Your task to perform on an android device: find snoozed emails in the gmail app Image 0: 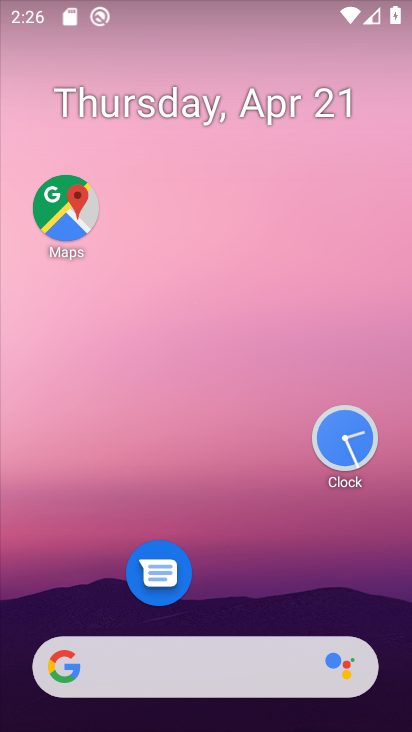
Step 0: drag from (37, 532) to (265, 34)
Your task to perform on an android device: find snoozed emails in the gmail app Image 1: 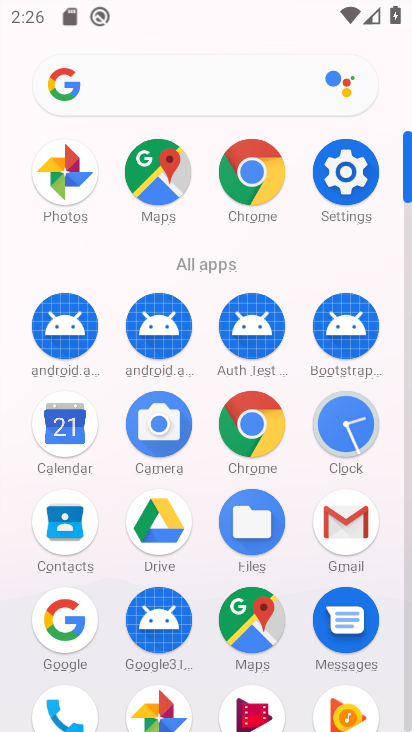
Step 1: click (340, 530)
Your task to perform on an android device: find snoozed emails in the gmail app Image 2: 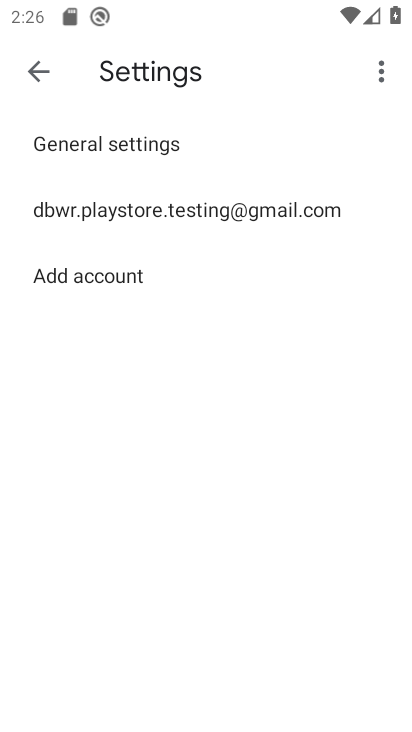
Step 2: click (35, 83)
Your task to perform on an android device: find snoozed emails in the gmail app Image 3: 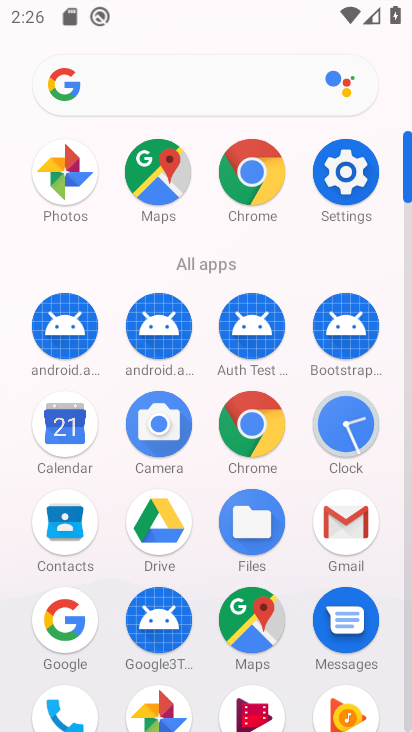
Step 3: click (348, 533)
Your task to perform on an android device: find snoozed emails in the gmail app Image 4: 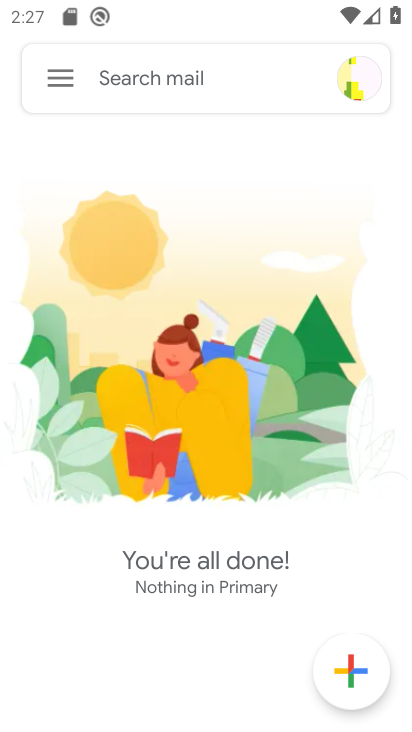
Step 4: click (59, 77)
Your task to perform on an android device: find snoozed emails in the gmail app Image 5: 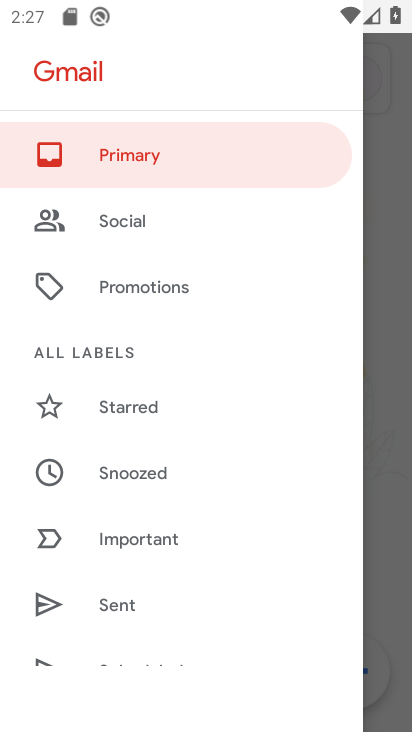
Step 5: click (168, 472)
Your task to perform on an android device: find snoozed emails in the gmail app Image 6: 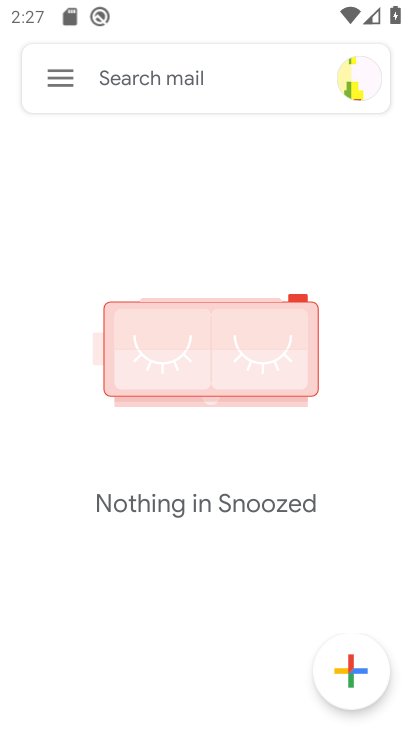
Step 6: task complete